Your task to perform on an android device: Check the weather Image 0: 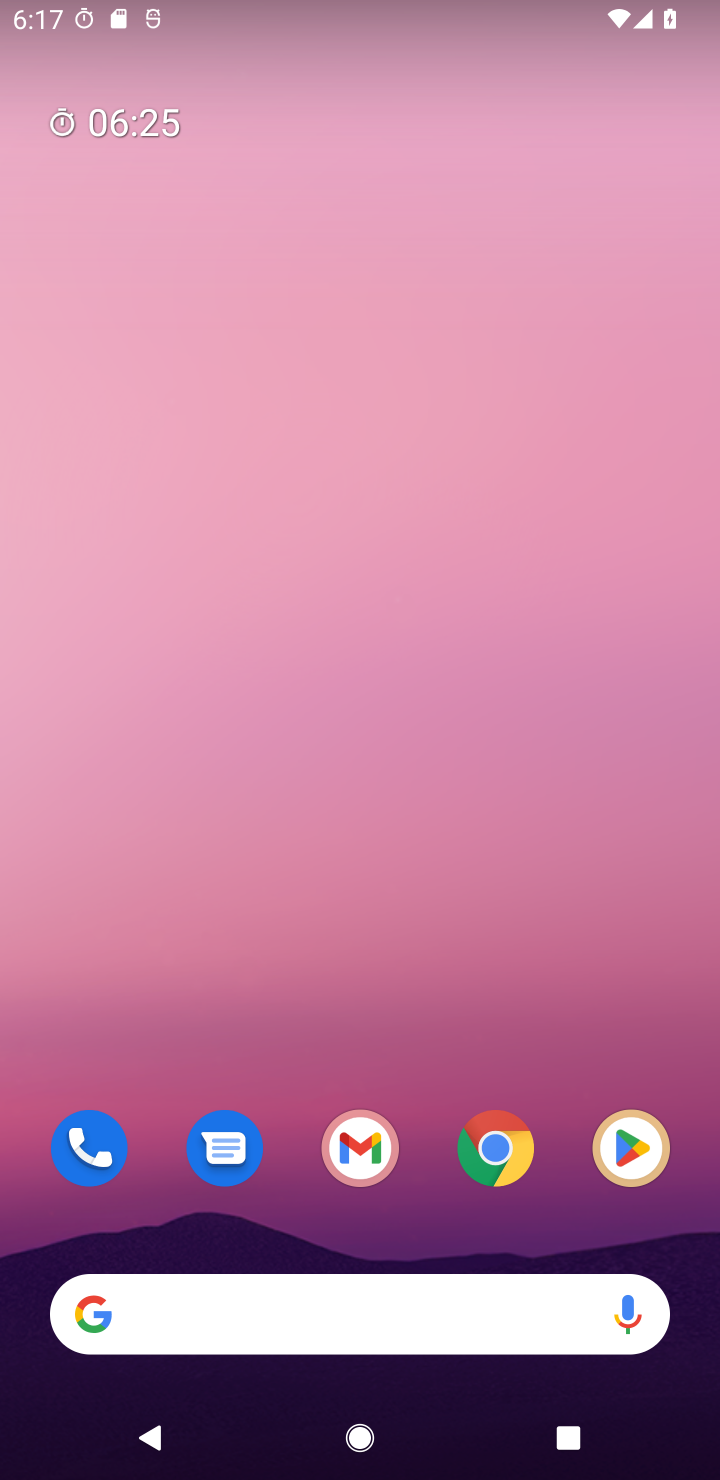
Step 0: drag from (350, 942) to (412, 0)
Your task to perform on an android device: Check the weather Image 1: 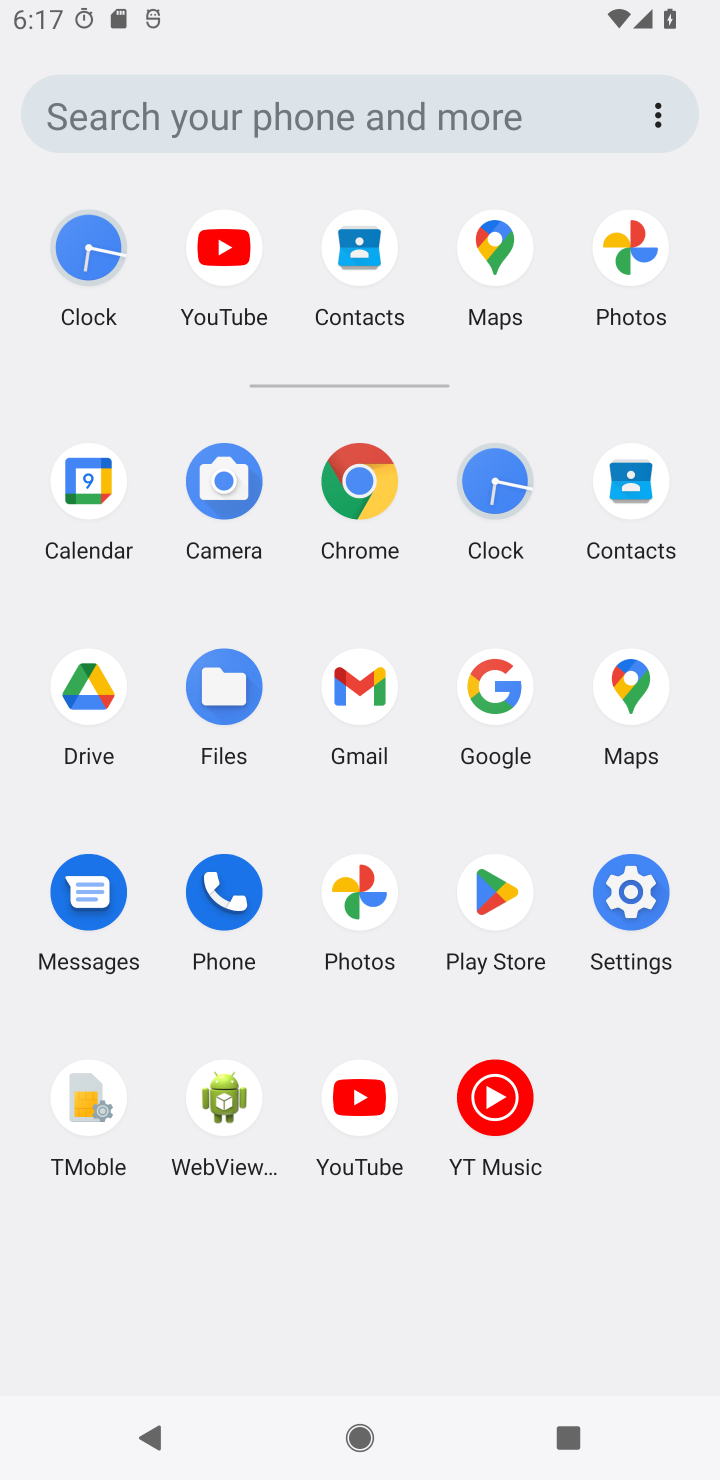
Step 1: click (485, 704)
Your task to perform on an android device: Check the weather Image 2: 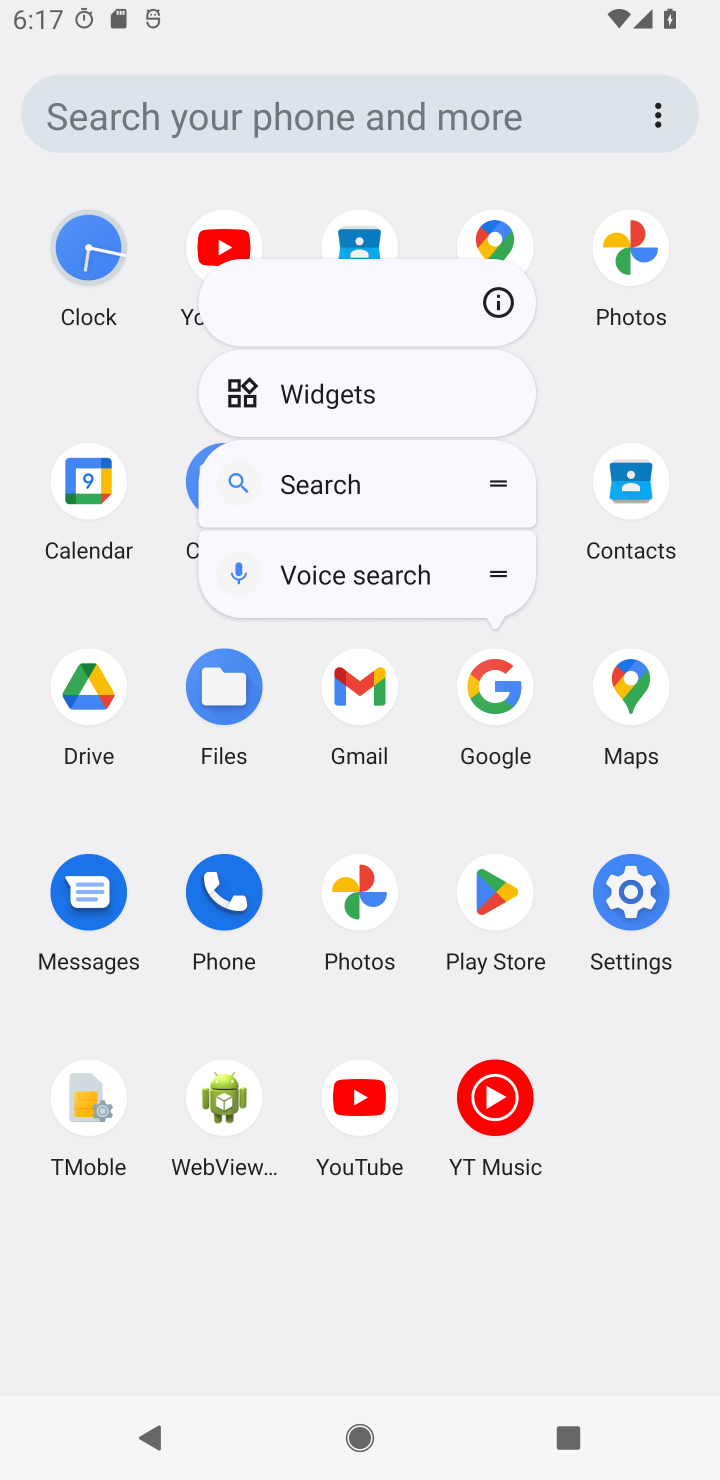
Step 2: click (497, 711)
Your task to perform on an android device: Check the weather Image 3: 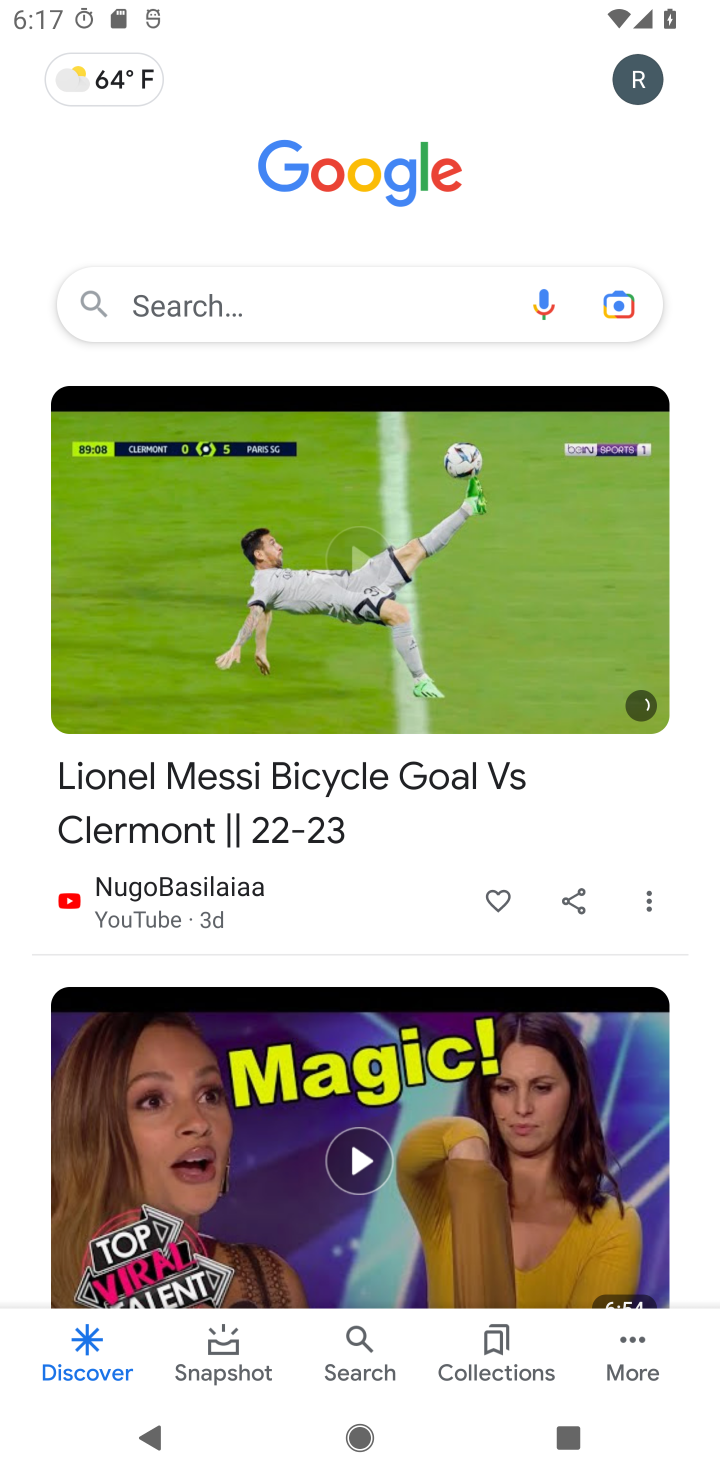
Step 3: click (316, 316)
Your task to perform on an android device: Check the weather Image 4: 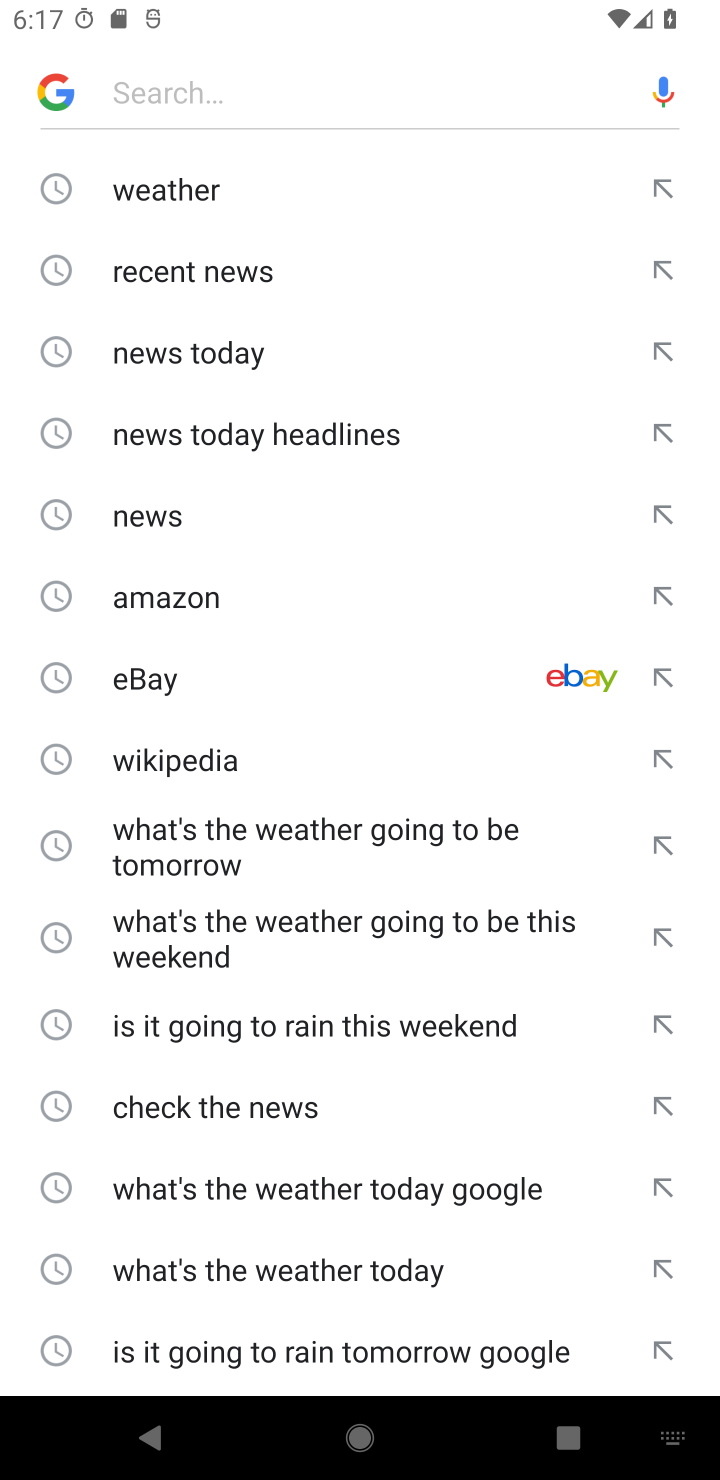
Step 4: click (223, 181)
Your task to perform on an android device: Check the weather Image 5: 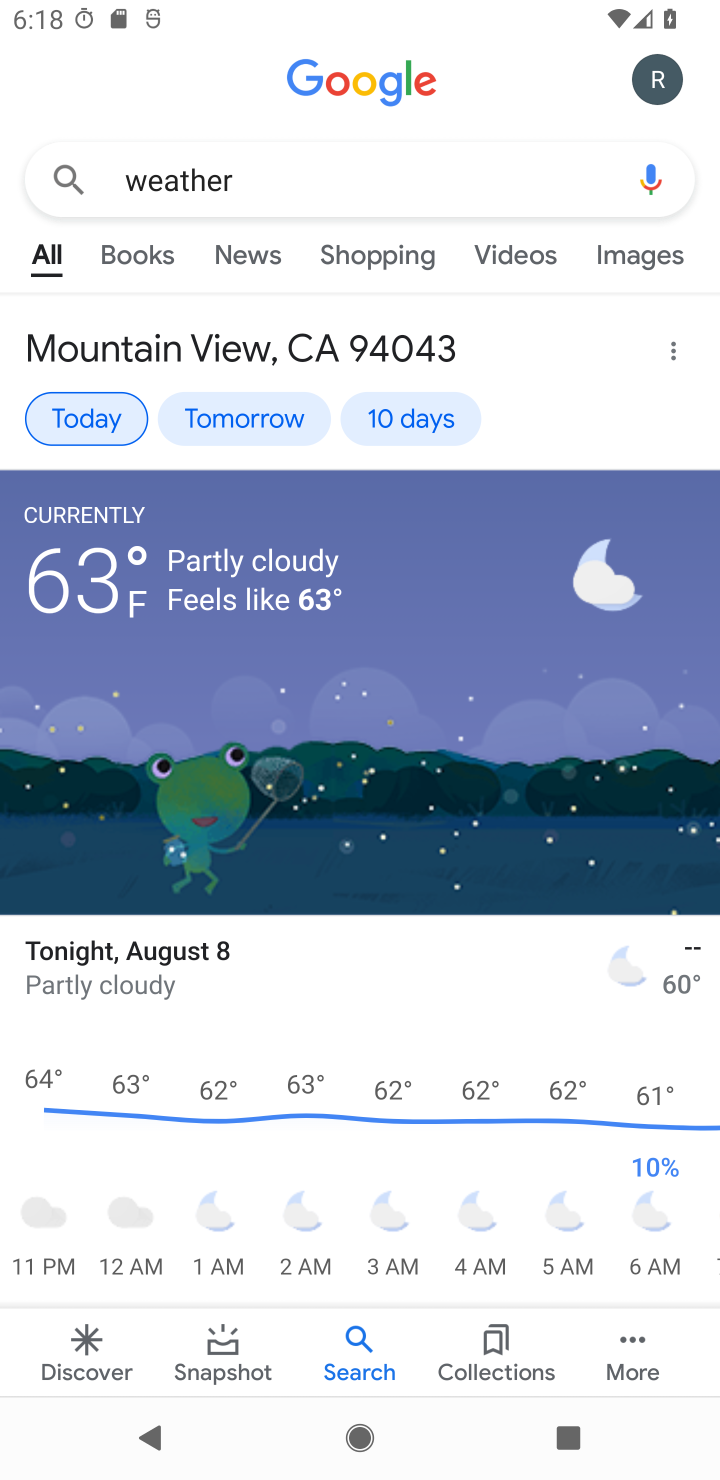
Step 5: task complete